Your task to perform on an android device: Open Google Chrome Image 0: 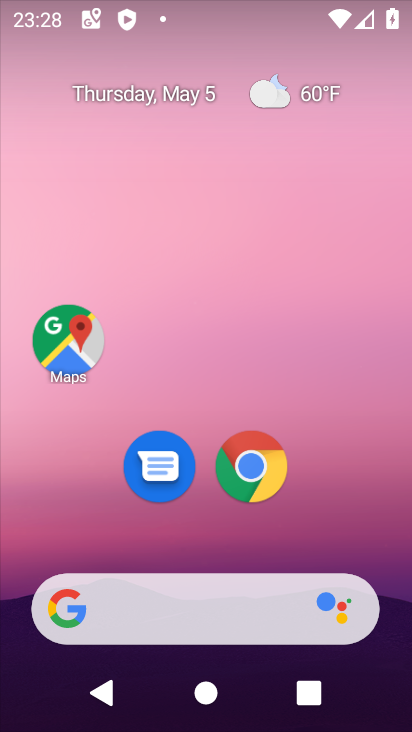
Step 0: drag from (182, 569) to (252, 119)
Your task to perform on an android device: Open Google Chrome Image 1: 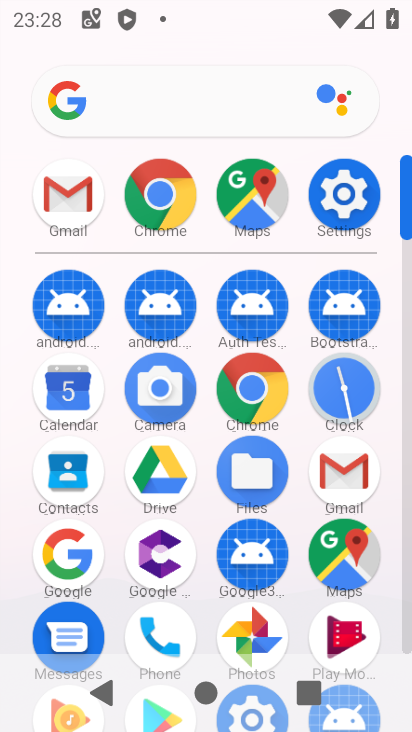
Step 1: click (234, 395)
Your task to perform on an android device: Open Google Chrome Image 2: 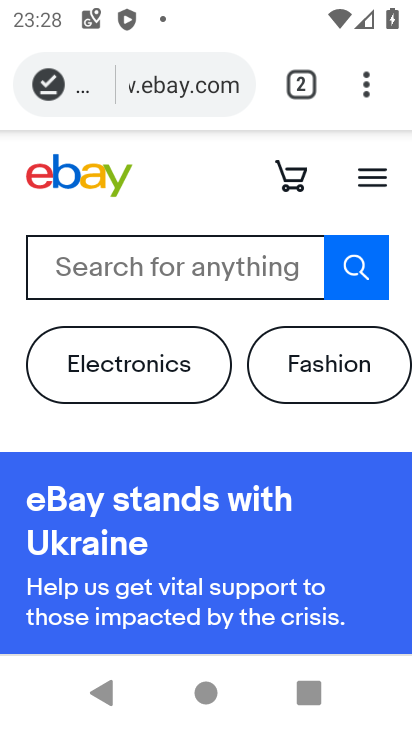
Step 2: task complete